Your task to perform on an android device: Clear all items from cart on amazon.com. Add bose quietcomfort 35 to the cart on amazon.com Image 0: 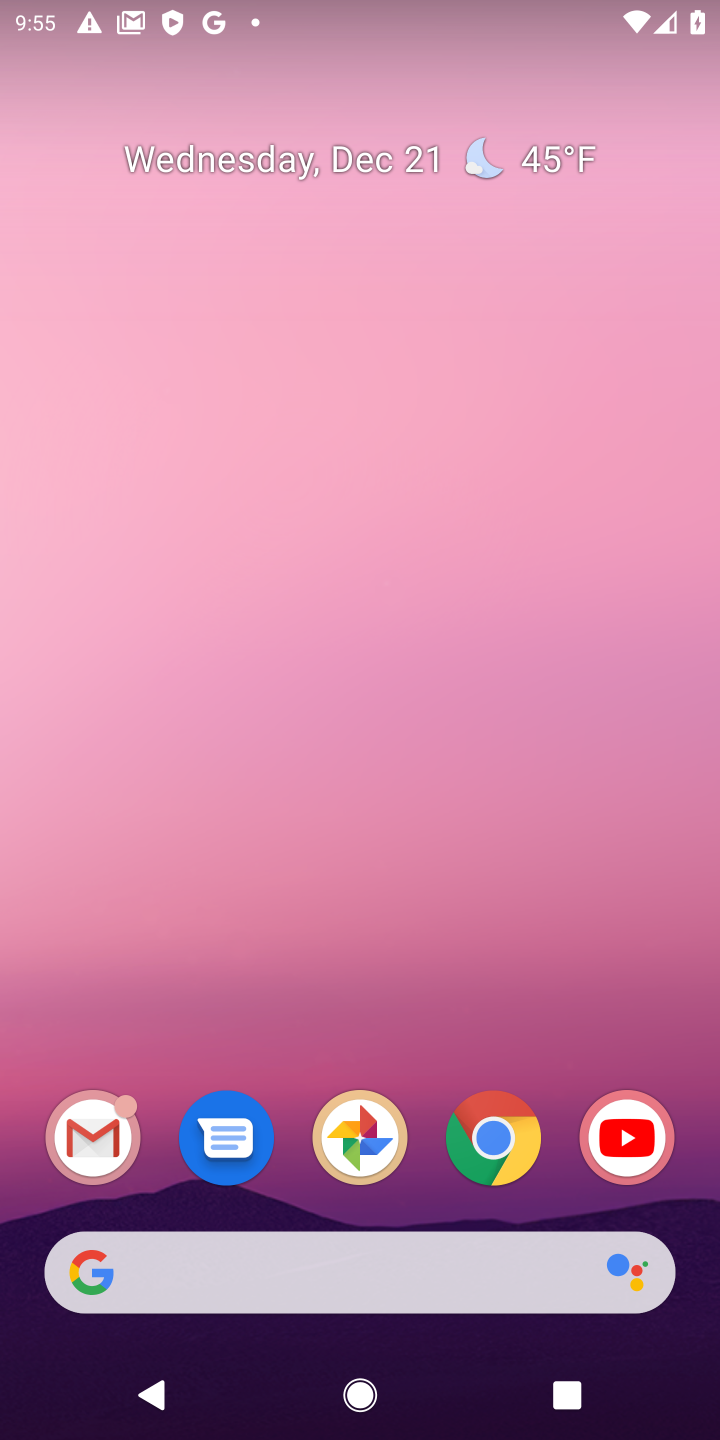
Step 0: click (508, 1146)
Your task to perform on an android device: Clear all items from cart on amazon.com. Add bose quietcomfort 35 to the cart on amazon.com Image 1: 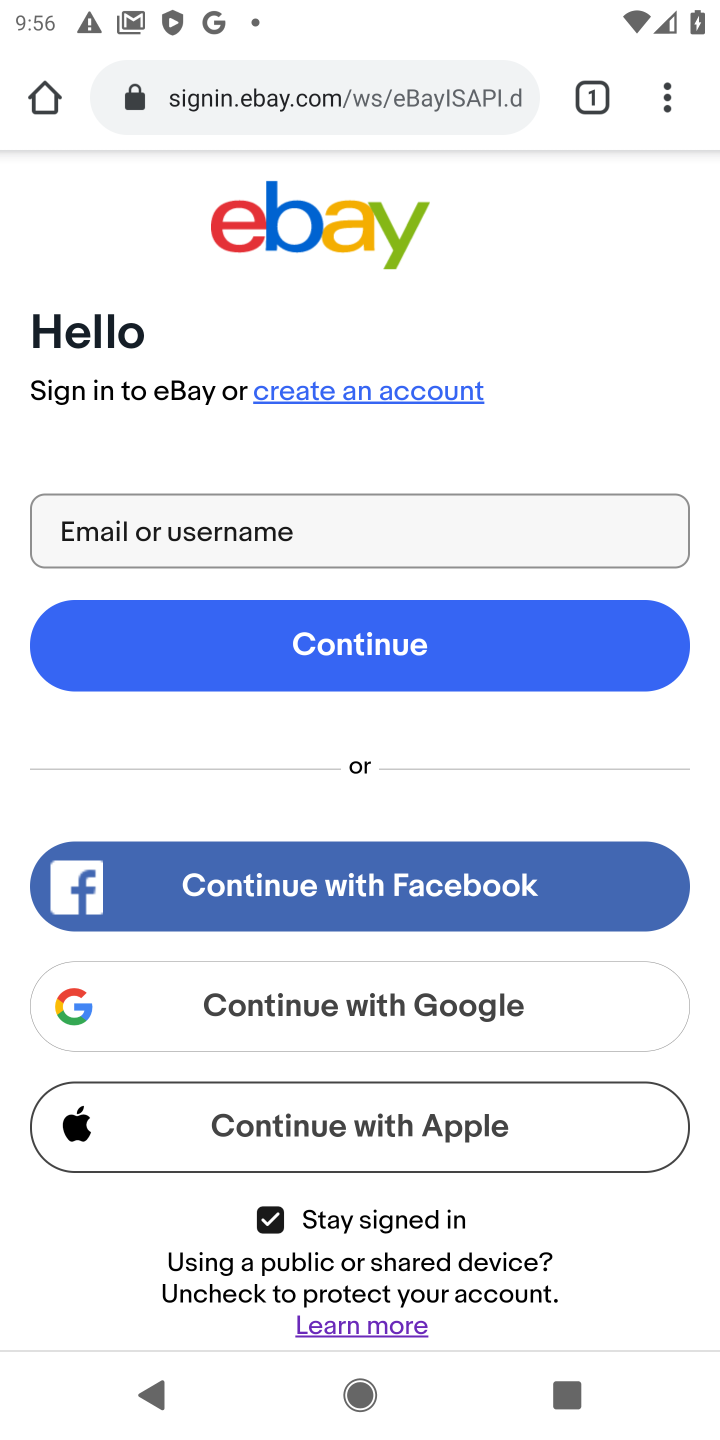
Step 1: click (270, 97)
Your task to perform on an android device: Clear all items from cart on amazon.com. Add bose quietcomfort 35 to the cart on amazon.com Image 2: 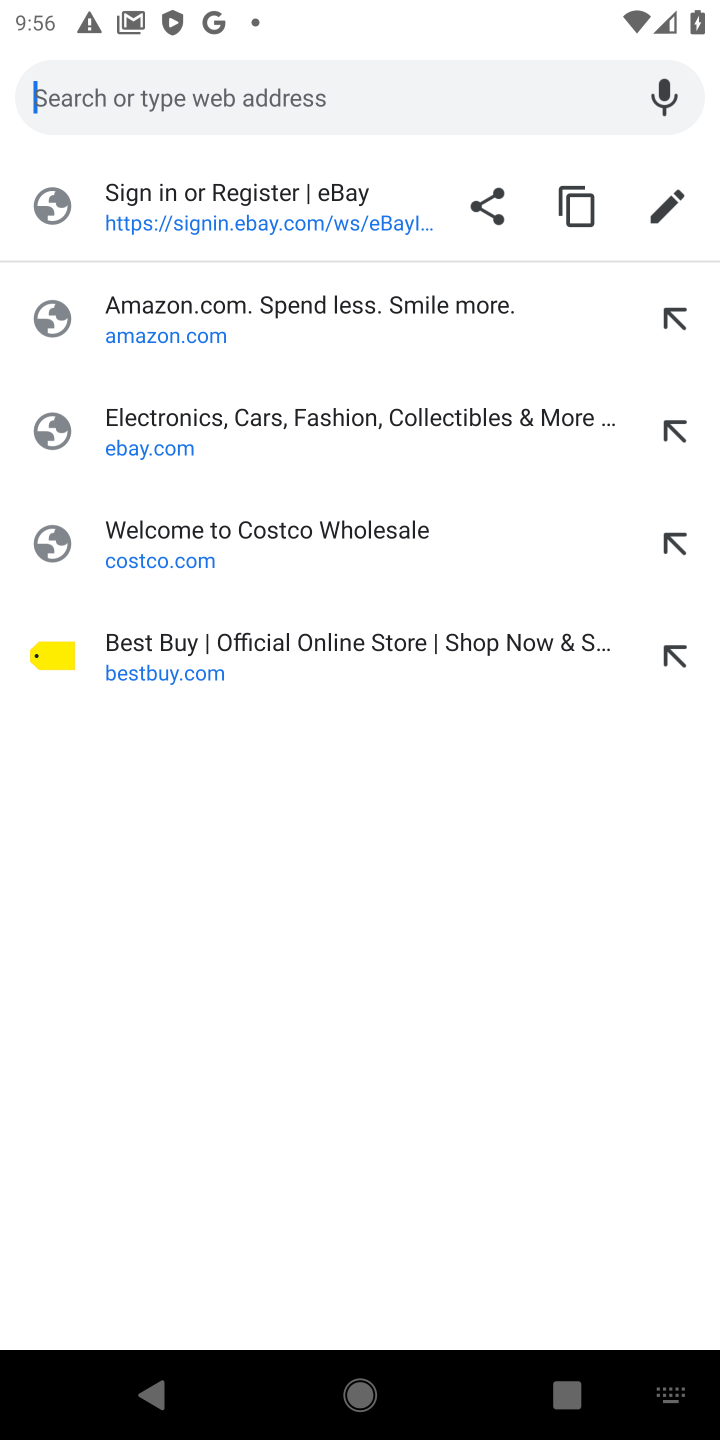
Step 2: click (151, 333)
Your task to perform on an android device: Clear all items from cart on amazon.com. Add bose quietcomfort 35 to the cart on amazon.com Image 3: 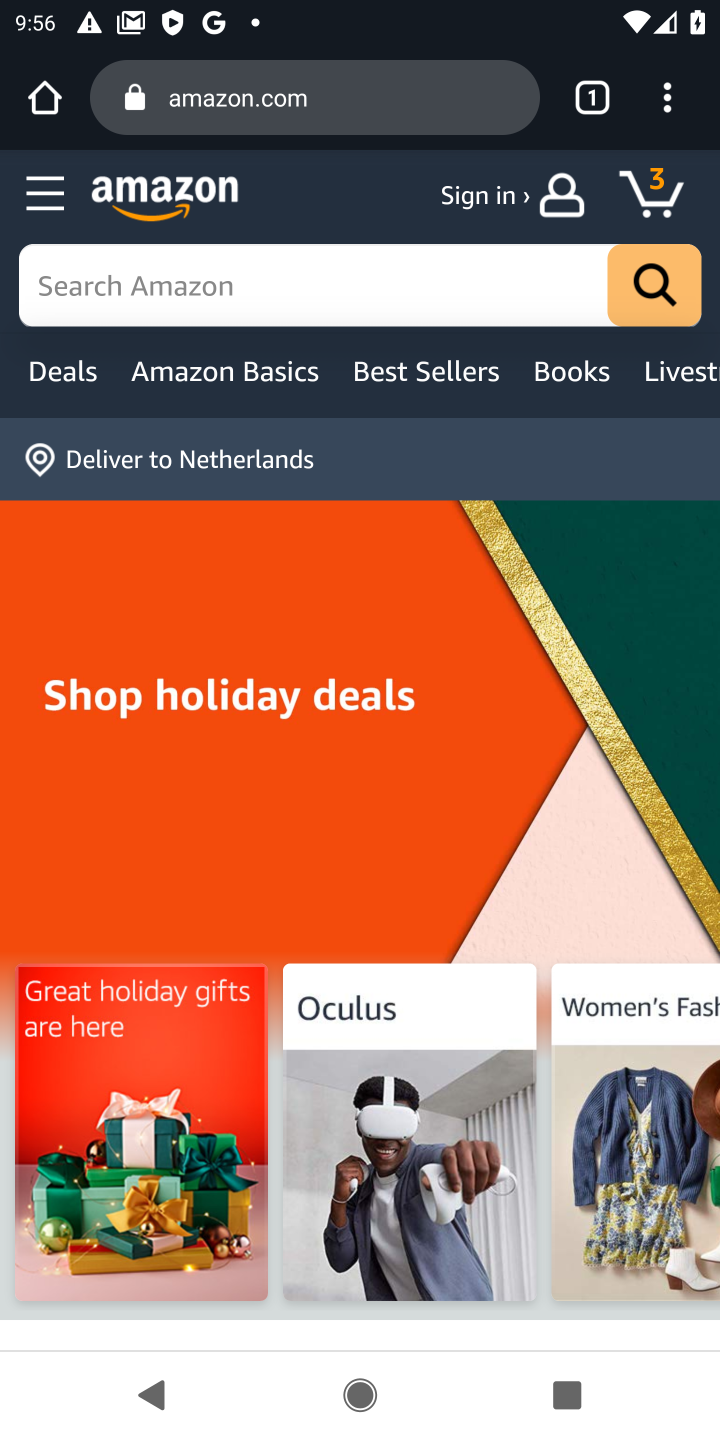
Step 3: click (653, 205)
Your task to perform on an android device: Clear all items from cart on amazon.com. Add bose quietcomfort 35 to the cart on amazon.com Image 4: 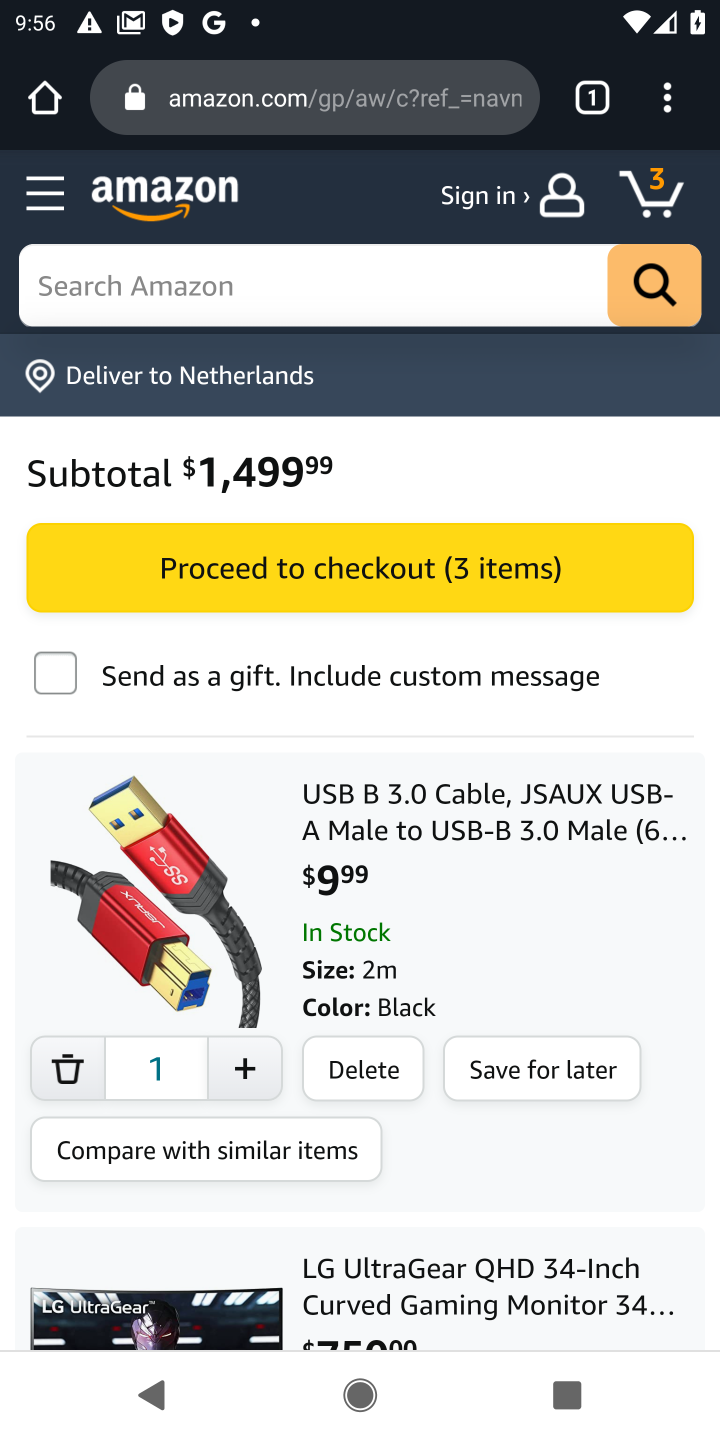
Step 4: click (378, 1074)
Your task to perform on an android device: Clear all items from cart on amazon.com. Add bose quietcomfort 35 to the cart on amazon.com Image 5: 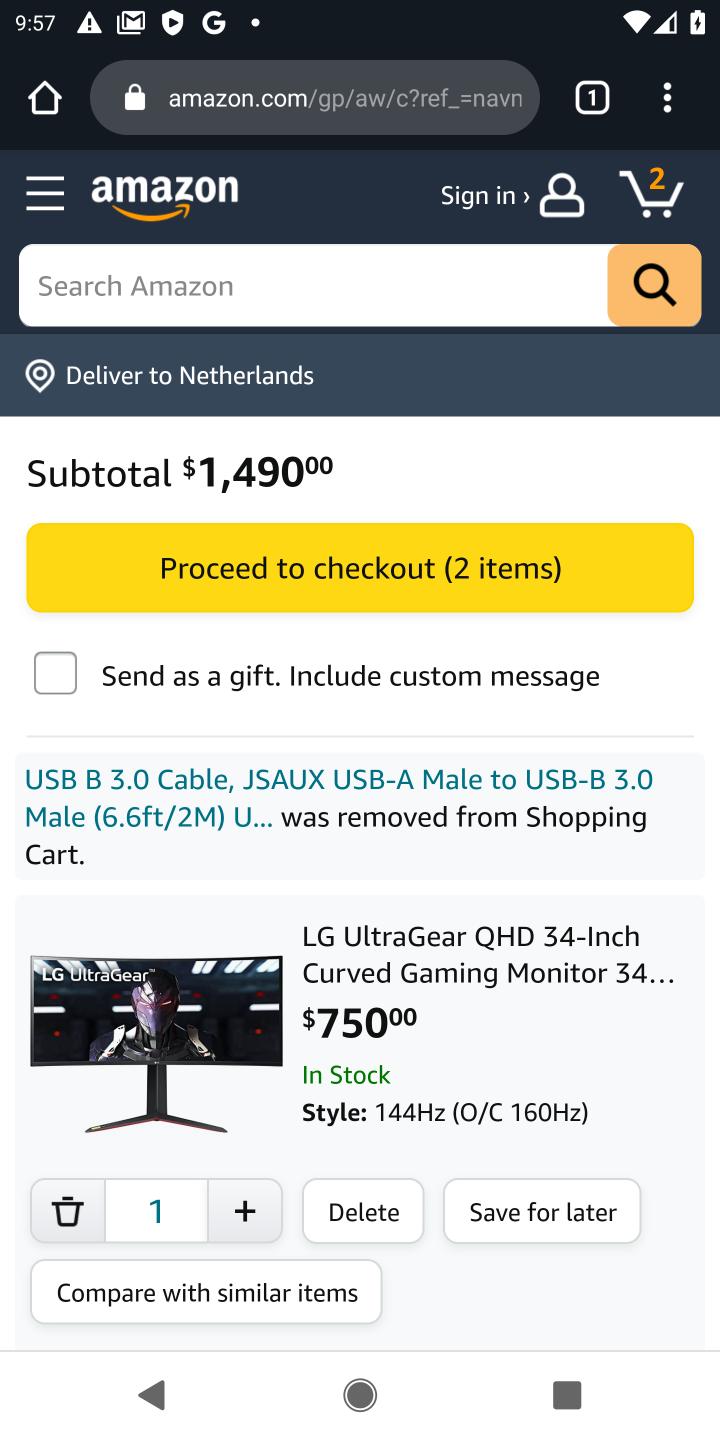
Step 5: click (356, 1216)
Your task to perform on an android device: Clear all items from cart on amazon.com. Add bose quietcomfort 35 to the cart on amazon.com Image 6: 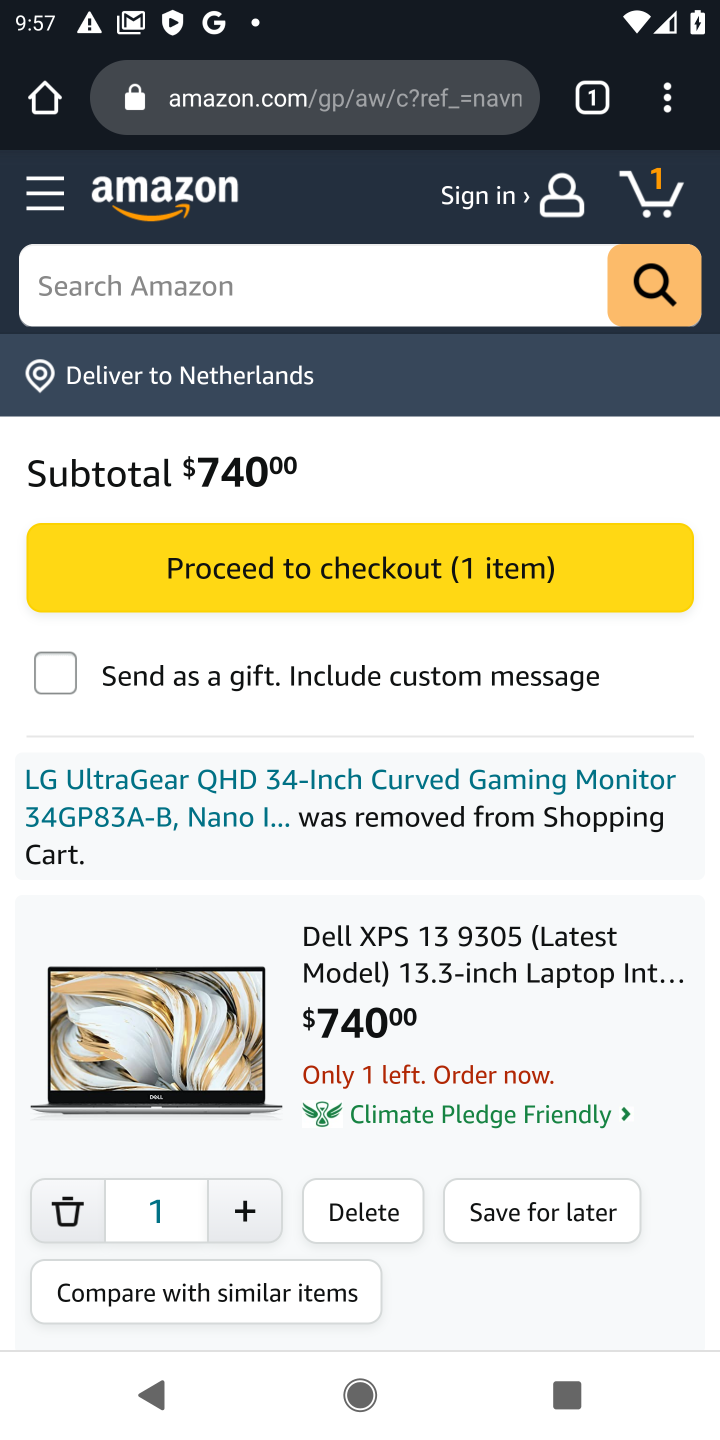
Step 6: click (363, 1212)
Your task to perform on an android device: Clear all items from cart on amazon.com. Add bose quietcomfort 35 to the cart on amazon.com Image 7: 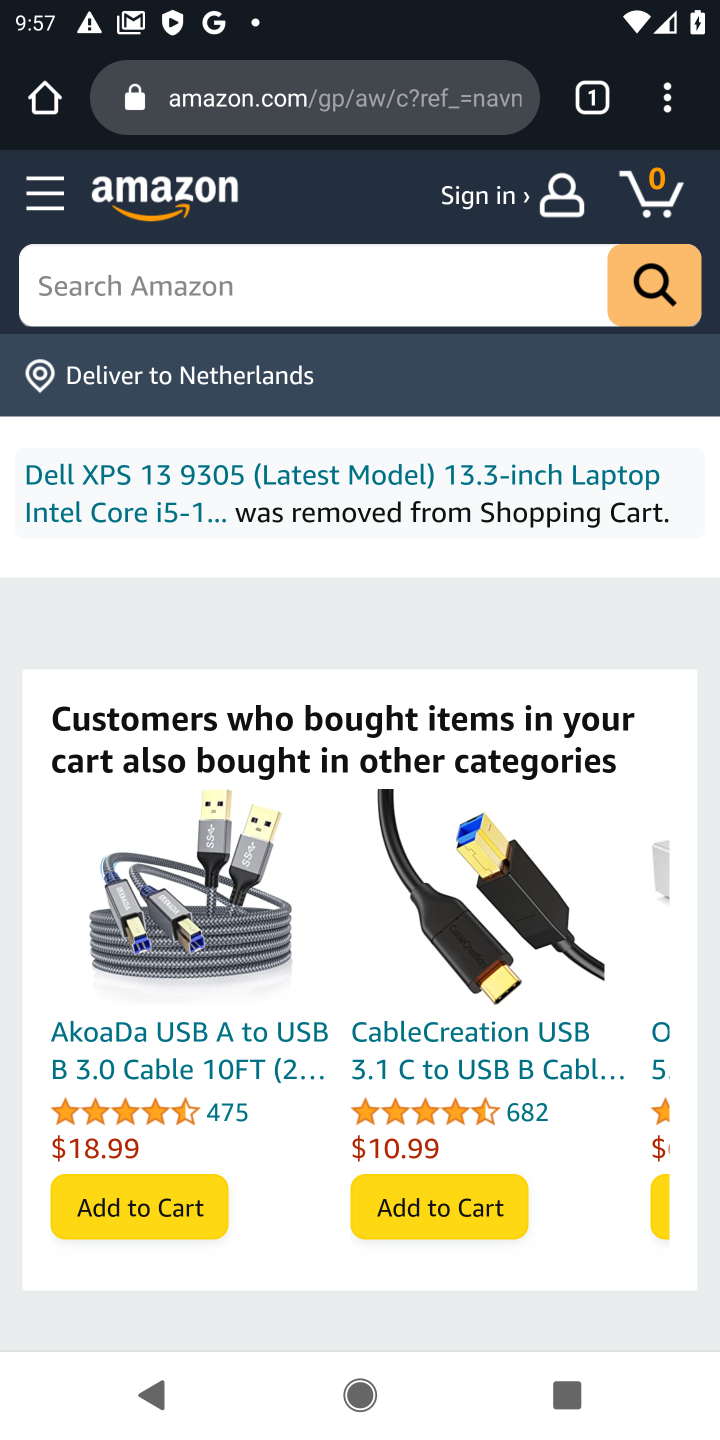
Step 7: click (132, 287)
Your task to perform on an android device: Clear all items from cart on amazon.com. Add bose quietcomfort 35 to the cart on amazon.com Image 8: 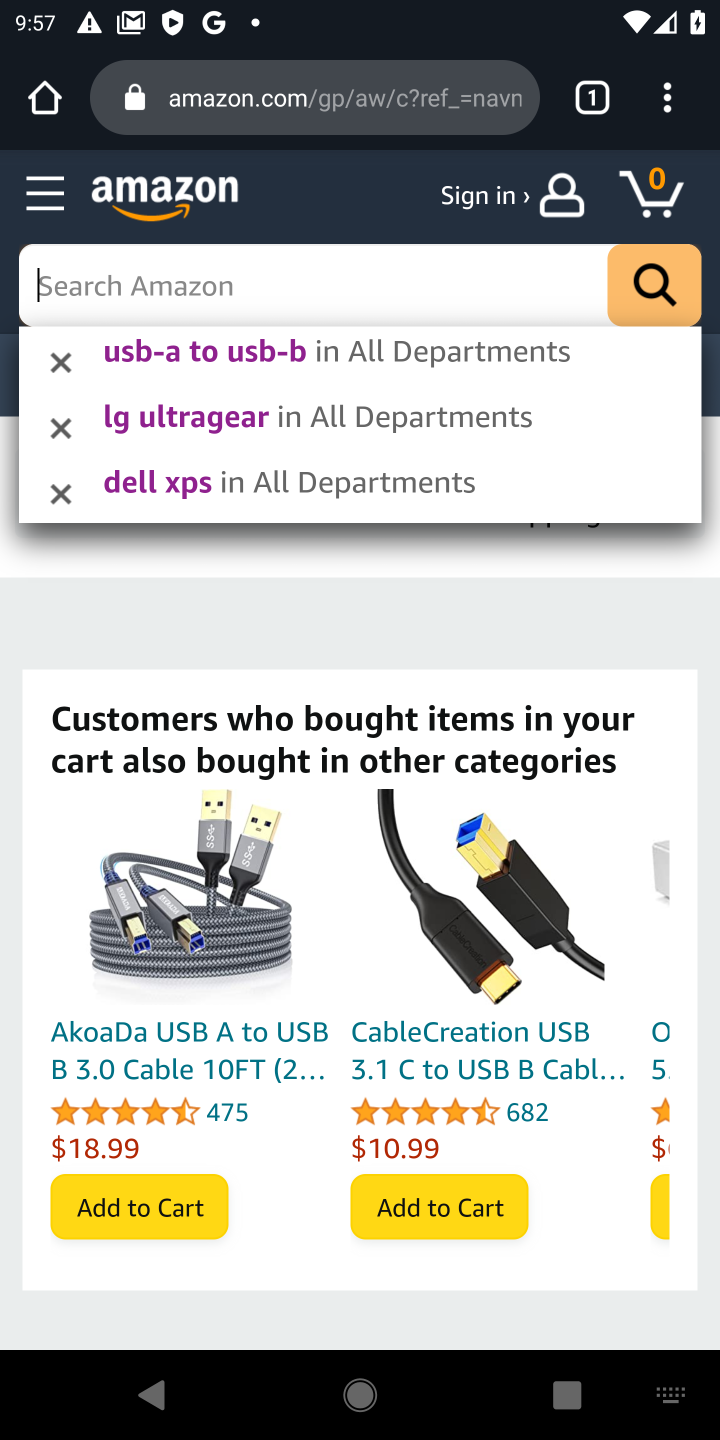
Step 8: type "bose quietcomfort 35"
Your task to perform on an android device: Clear all items from cart on amazon.com. Add bose quietcomfort 35 to the cart on amazon.com Image 9: 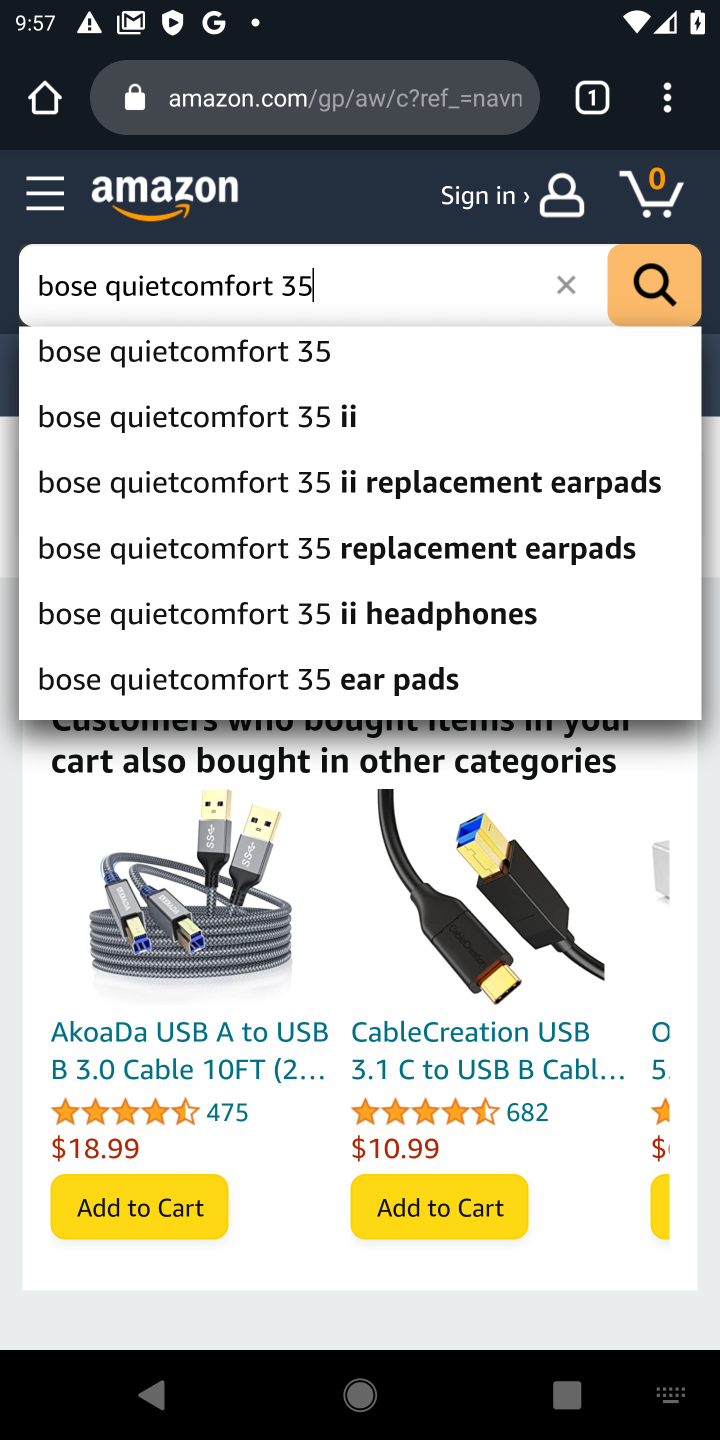
Step 9: click (212, 366)
Your task to perform on an android device: Clear all items from cart on amazon.com. Add bose quietcomfort 35 to the cart on amazon.com Image 10: 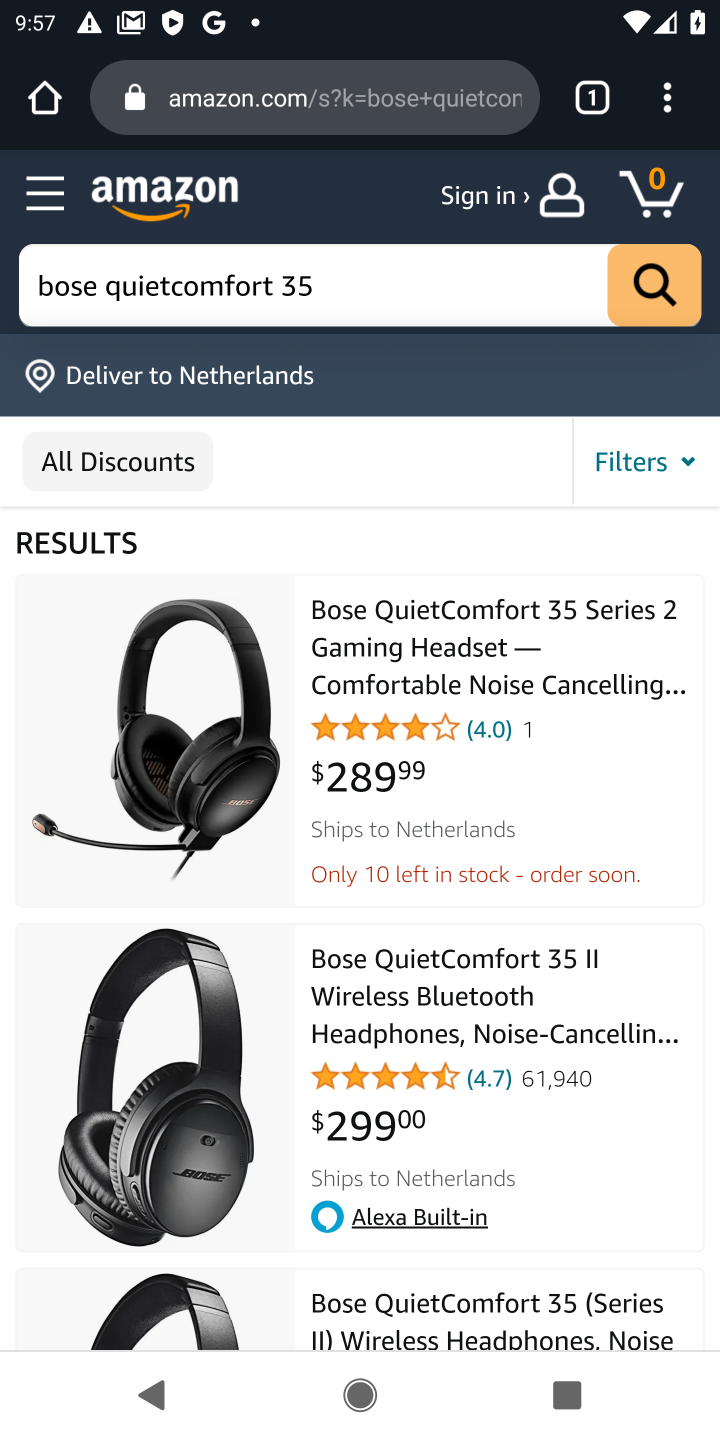
Step 10: click (378, 697)
Your task to perform on an android device: Clear all items from cart on amazon.com. Add bose quietcomfort 35 to the cart on amazon.com Image 11: 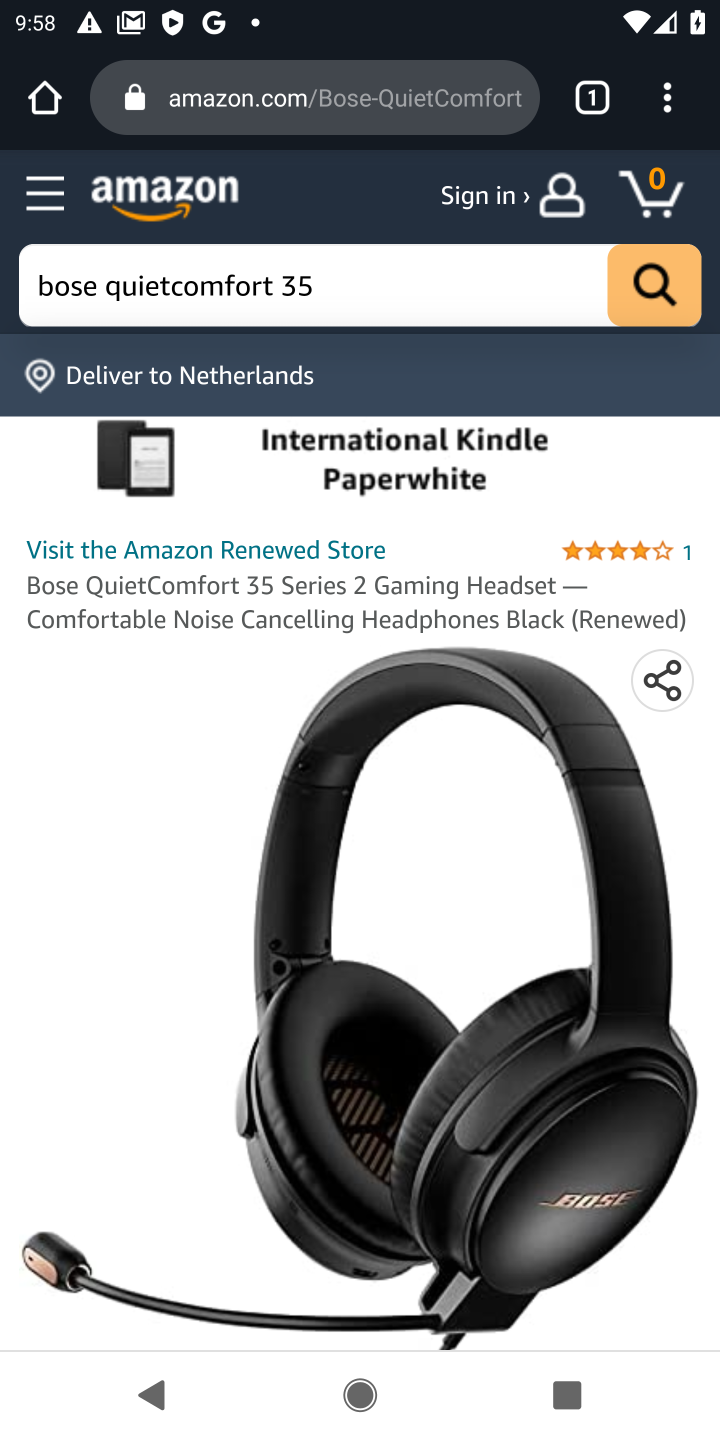
Step 11: drag from (297, 1058) to (414, 330)
Your task to perform on an android device: Clear all items from cart on amazon.com. Add bose quietcomfort 35 to the cart on amazon.com Image 12: 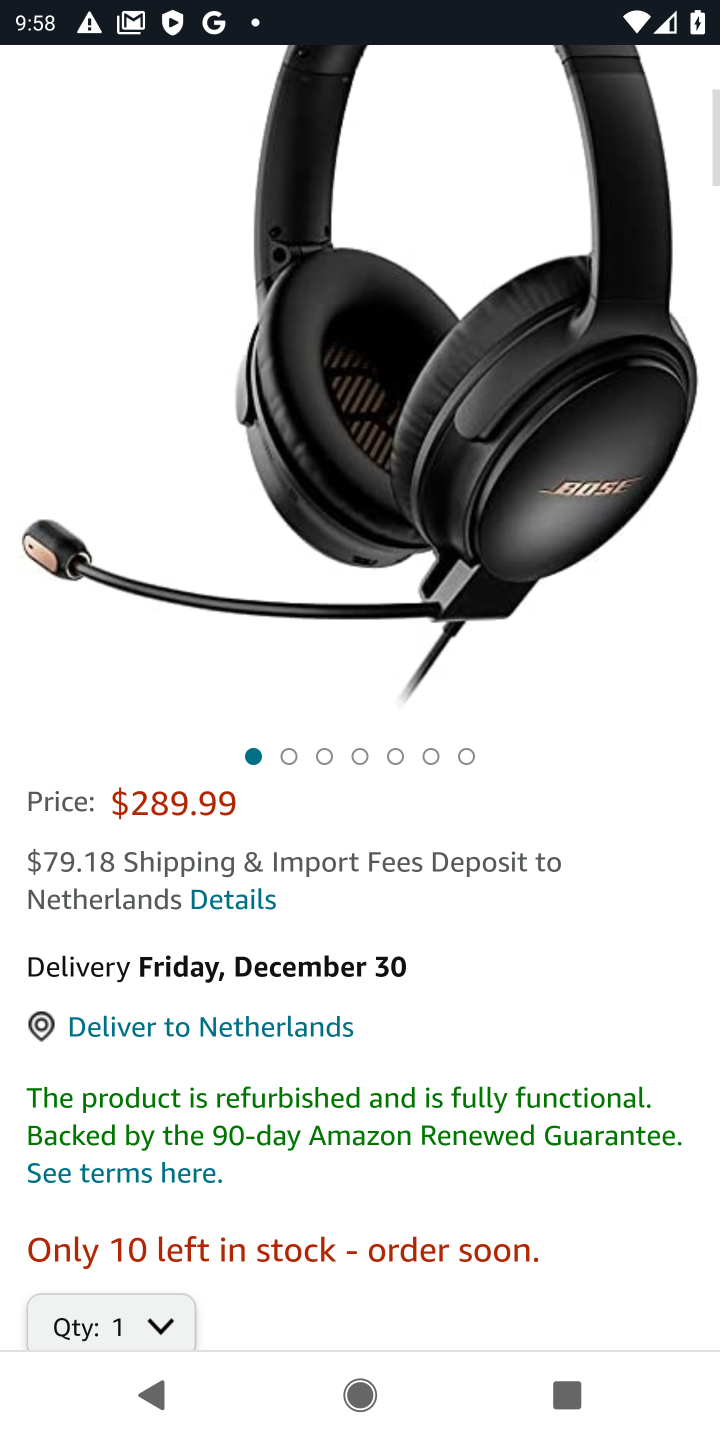
Step 12: drag from (334, 896) to (343, 101)
Your task to perform on an android device: Clear all items from cart on amazon.com. Add bose quietcomfort 35 to the cart on amazon.com Image 13: 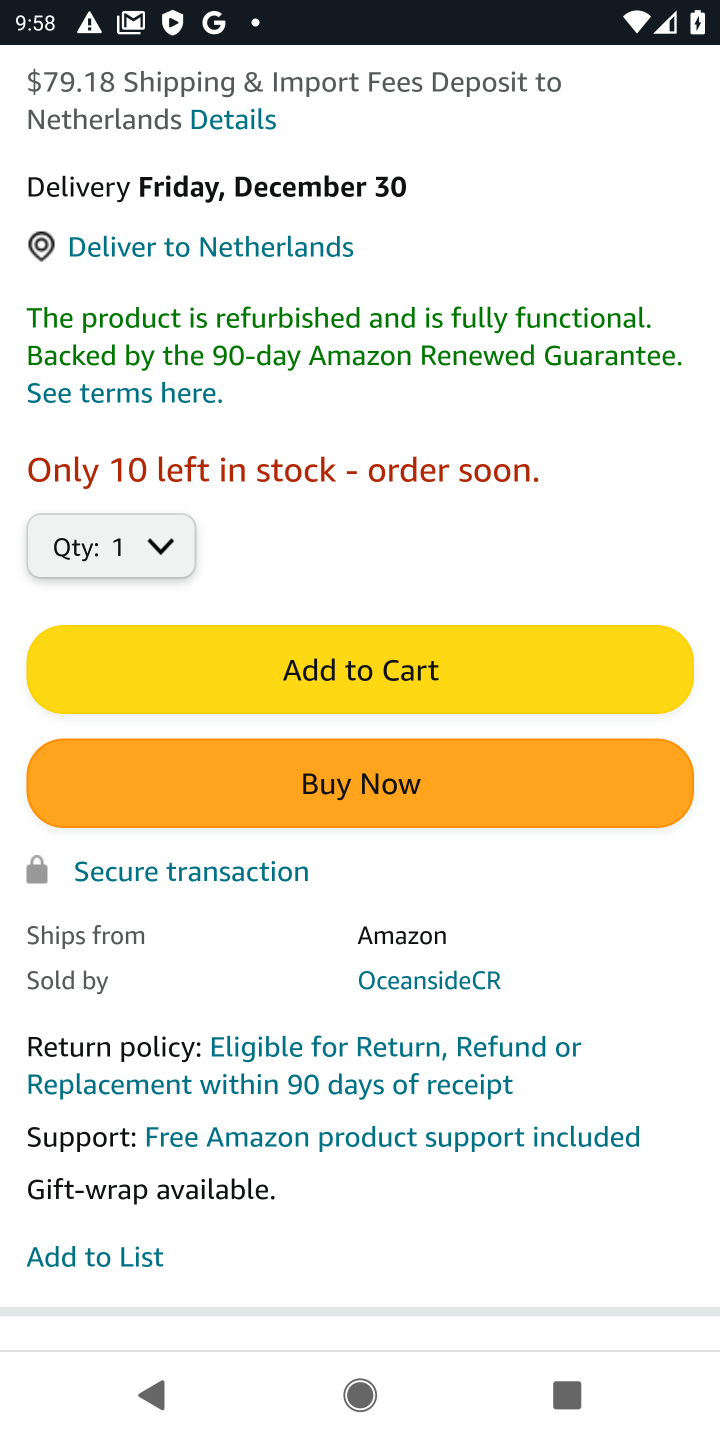
Step 13: click (328, 675)
Your task to perform on an android device: Clear all items from cart on amazon.com. Add bose quietcomfort 35 to the cart on amazon.com Image 14: 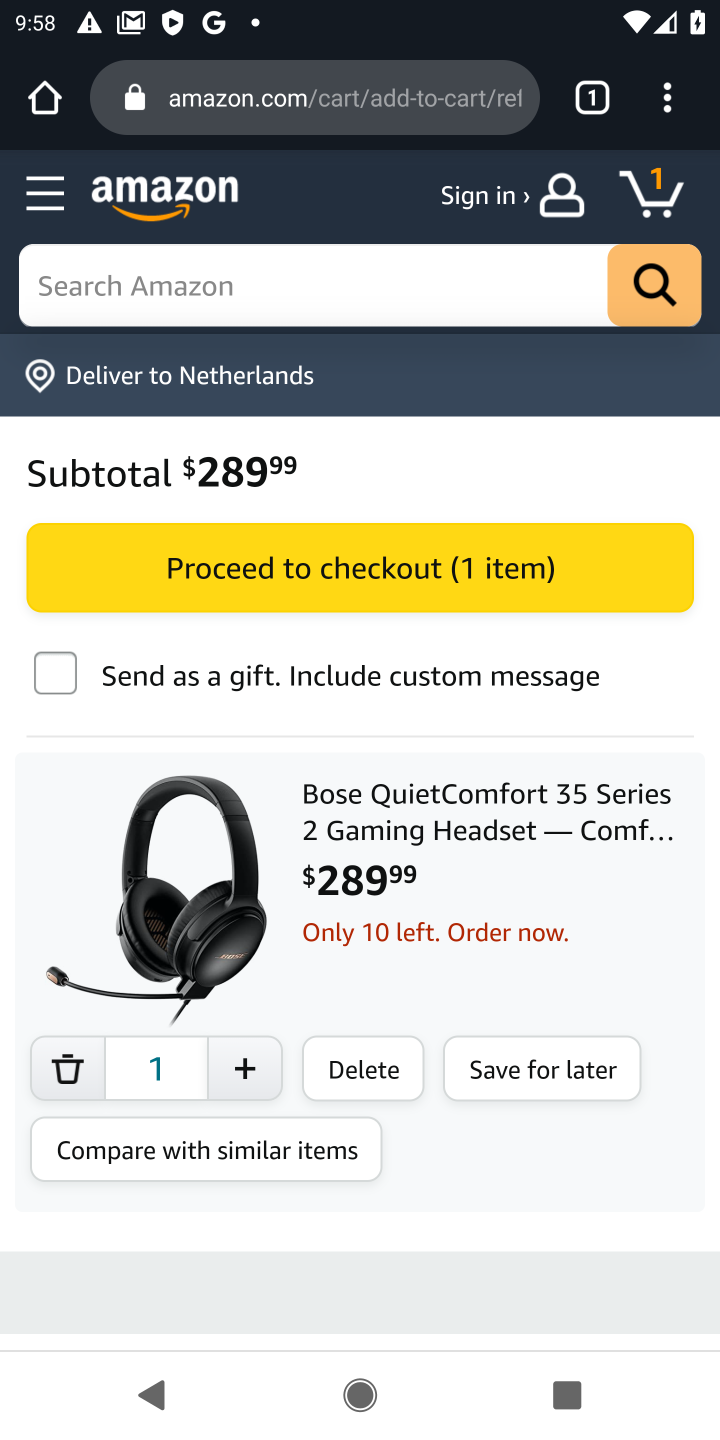
Step 14: task complete